Your task to perform on an android device: Open internet settings Image 0: 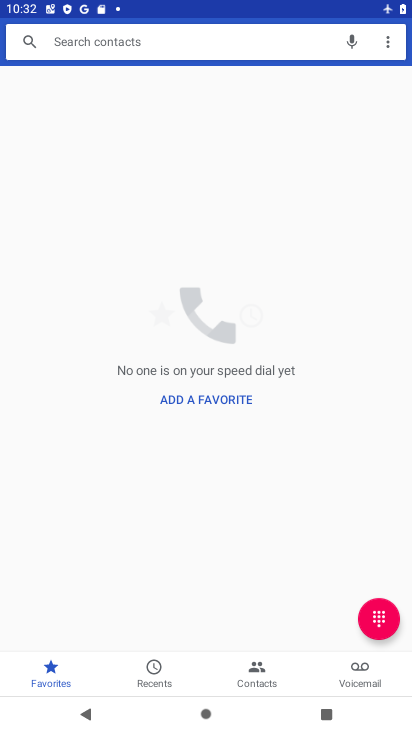
Step 0: press home button
Your task to perform on an android device: Open internet settings Image 1: 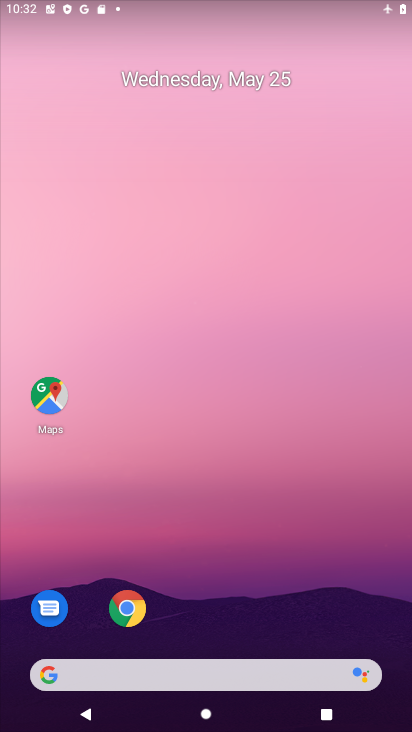
Step 1: drag from (271, 580) to (264, 8)
Your task to perform on an android device: Open internet settings Image 2: 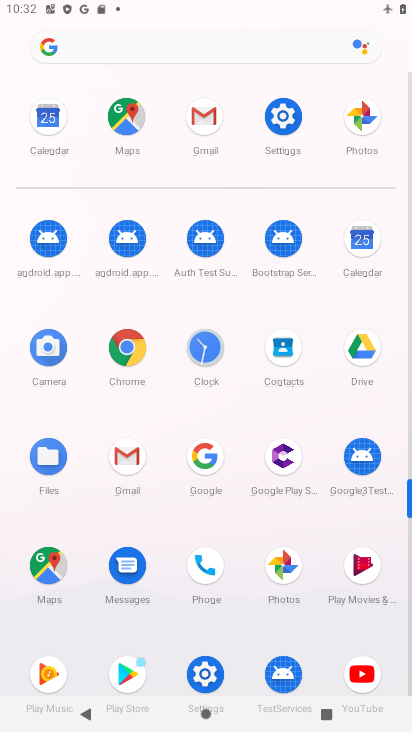
Step 2: click (286, 119)
Your task to perform on an android device: Open internet settings Image 3: 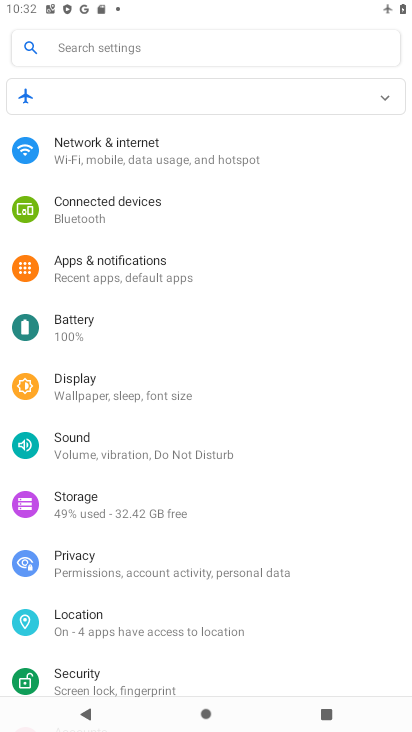
Step 3: click (103, 162)
Your task to perform on an android device: Open internet settings Image 4: 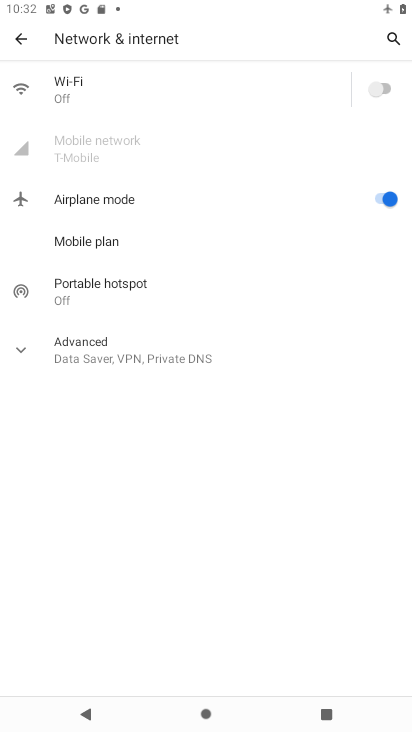
Step 4: task complete